Your task to perform on an android device: turn notification dots off Image 0: 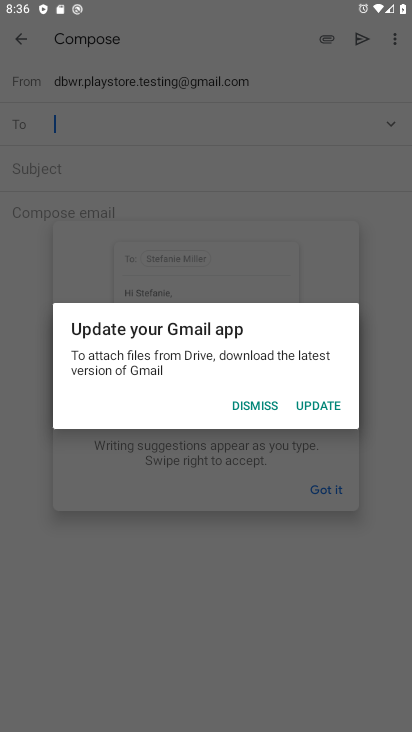
Step 0: press home button
Your task to perform on an android device: turn notification dots off Image 1: 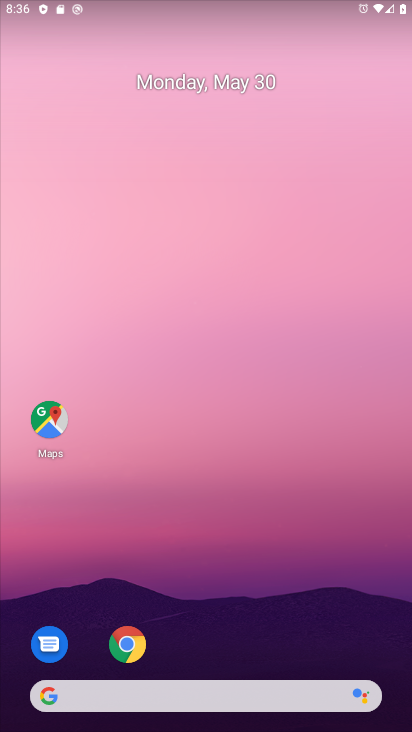
Step 1: drag from (382, 648) to (317, 50)
Your task to perform on an android device: turn notification dots off Image 2: 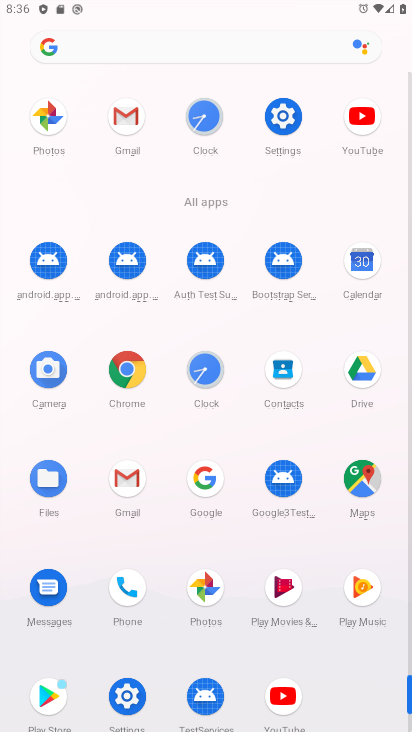
Step 2: click (127, 693)
Your task to perform on an android device: turn notification dots off Image 3: 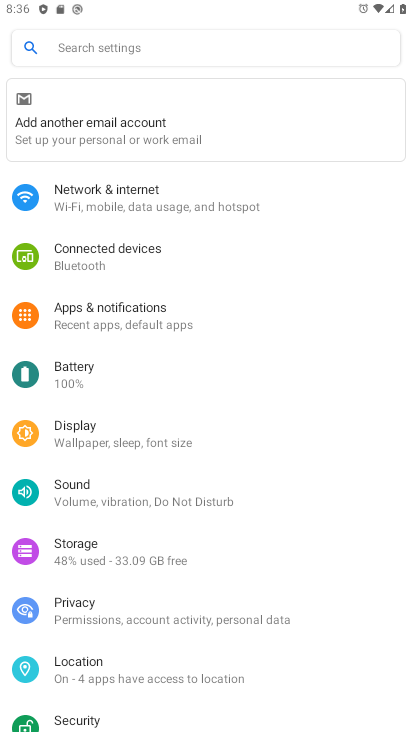
Step 3: click (110, 308)
Your task to perform on an android device: turn notification dots off Image 4: 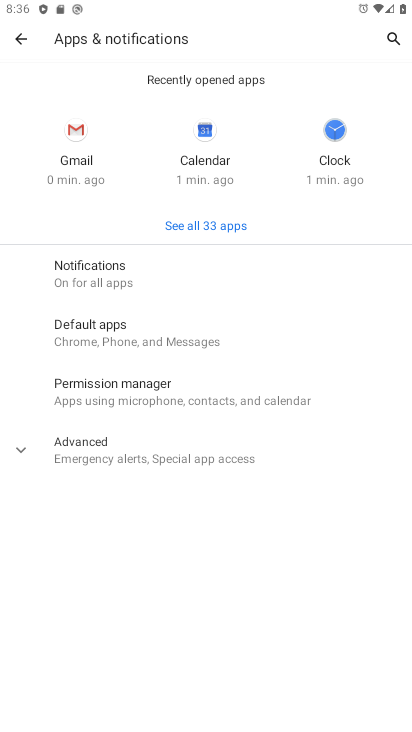
Step 4: click (69, 250)
Your task to perform on an android device: turn notification dots off Image 5: 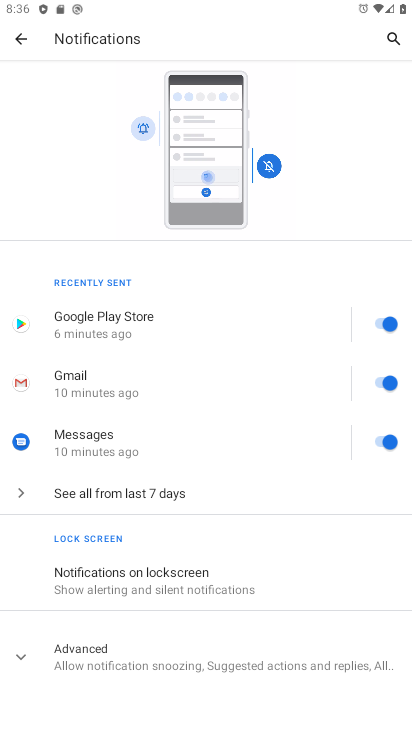
Step 5: drag from (217, 604) to (222, 267)
Your task to perform on an android device: turn notification dots off Image 6: 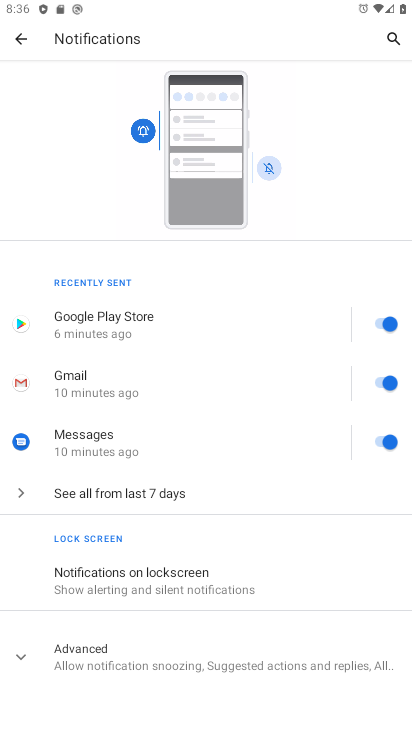
Step 6: click (18, 659)
Your task to perform on an android device: turn notification dots off Image 7: 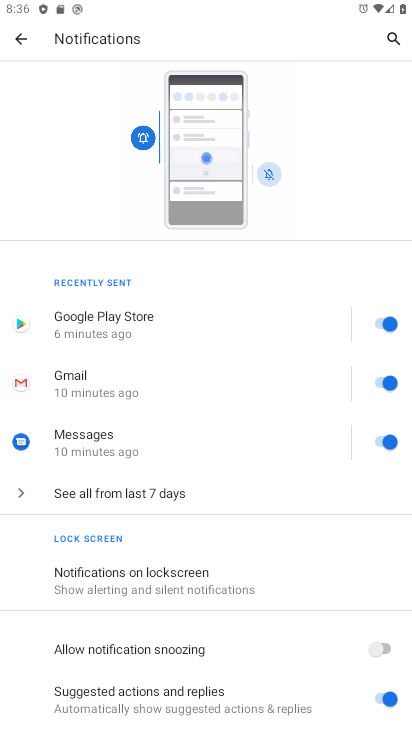
Step 7: drag from (266, 687) to (265, 295)
Your task to perform on an android device: turn notification dots off Image 8: 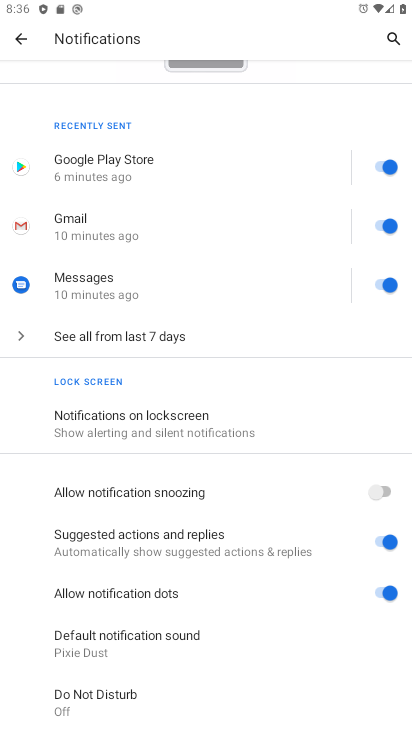
Step 8: click (377, 588)
Your task to perform on an android device: turn notification dots off Image 9: 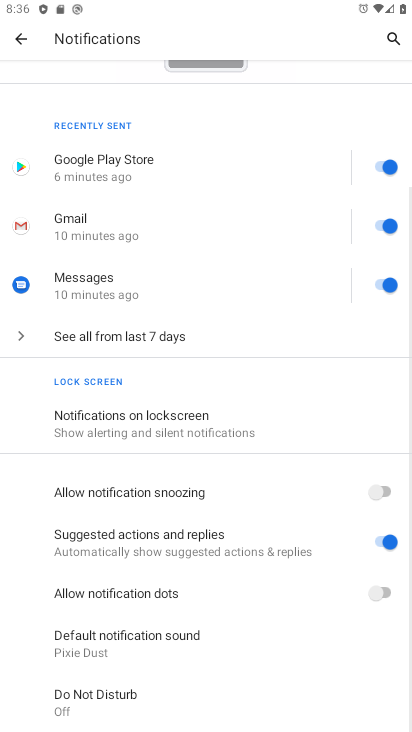
Step 9: task complete